Your task to perform on an android device: search for starred emails in the gmail app Image 0: 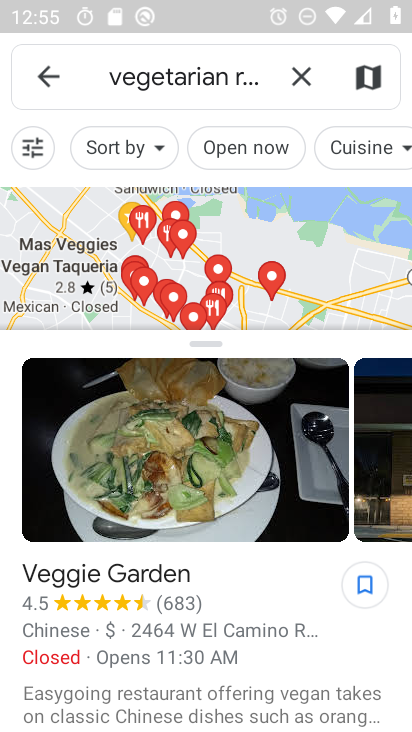
Step 0: press home button
Your task to perform on an android device: search for starred emails in the gmail app Image 1: 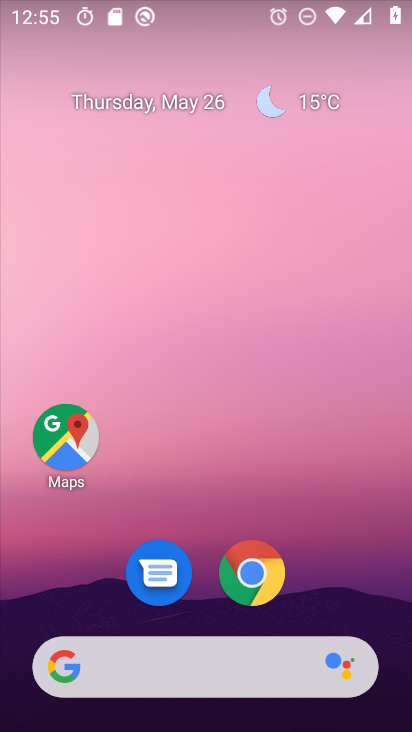
Step 1: drag from (330, 626) to (324, 0)
Your task to perform on an android device: search for starred emails in the gmail app Image 2: 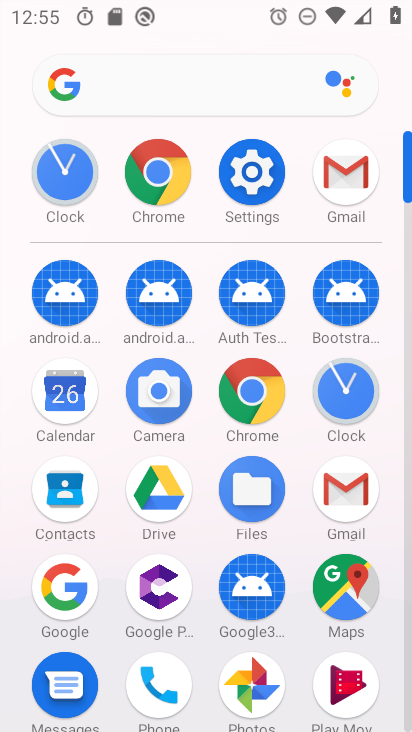
Step 2: click (333, 181)
Your task to perform on an android device: search for starred emails in the gmail app Image 3: 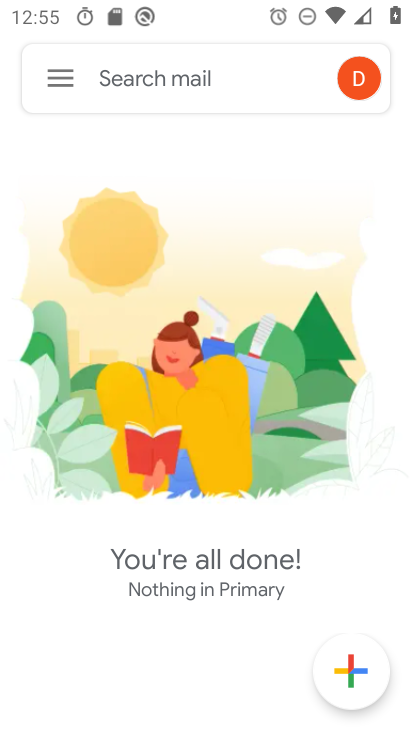
Step 3: click (52, 87)
Your task to perform on an android device: search for starred emails in the gmail app Image 4: 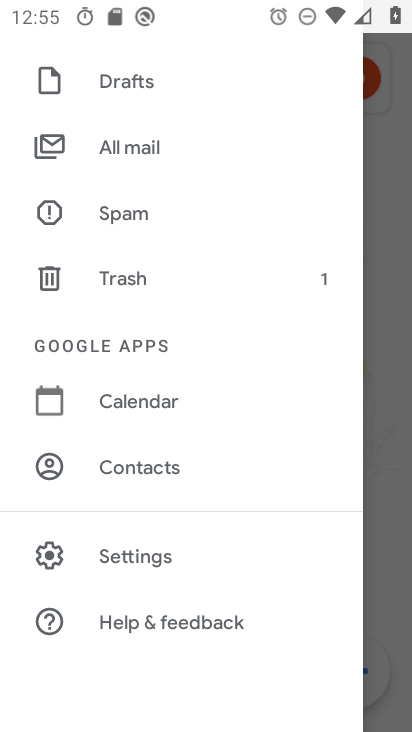
Step 4: drag from (199, 293) to (190, 662)
Your task to perform on an android device: search for starred emails in the gmail app Image 5: 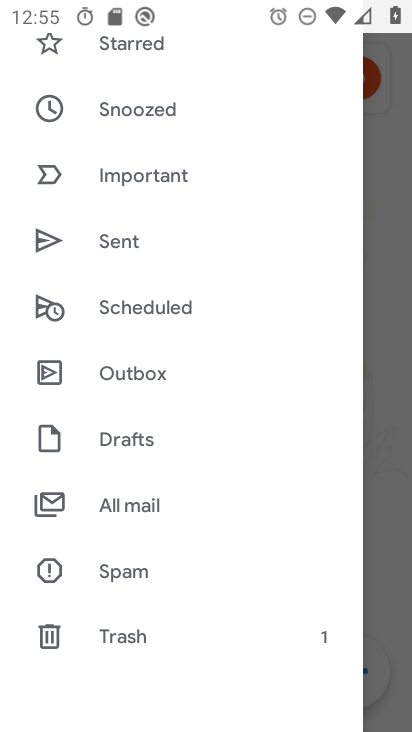
Step 5: click (122, 54)
Your task to perform on an android device: search for starred emails in the gmail app Image 6: 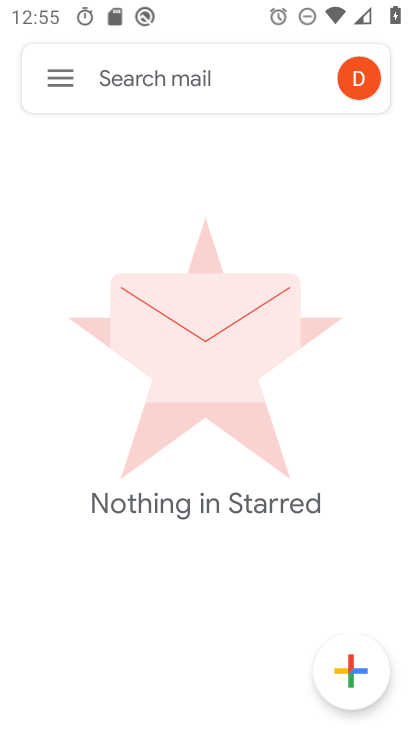
Step 6: task complete